Your task to perform on an android device: Add "asus zenbook" to the cart on walmart Image 0: 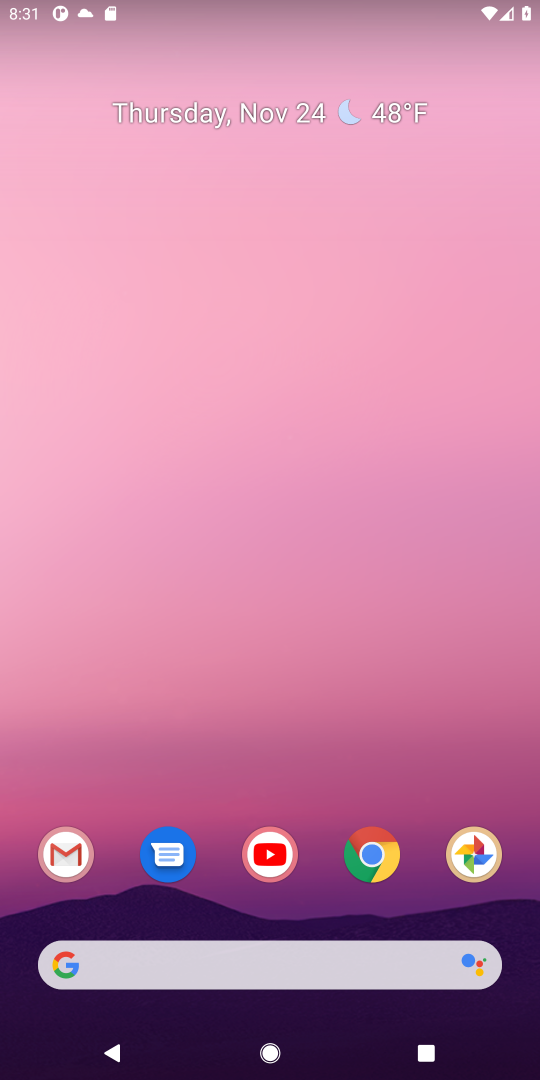
Step 0: click (369, 853)
Your task to perform on an android device: Add "asus zenbook" to the cart on walmart Image 1: 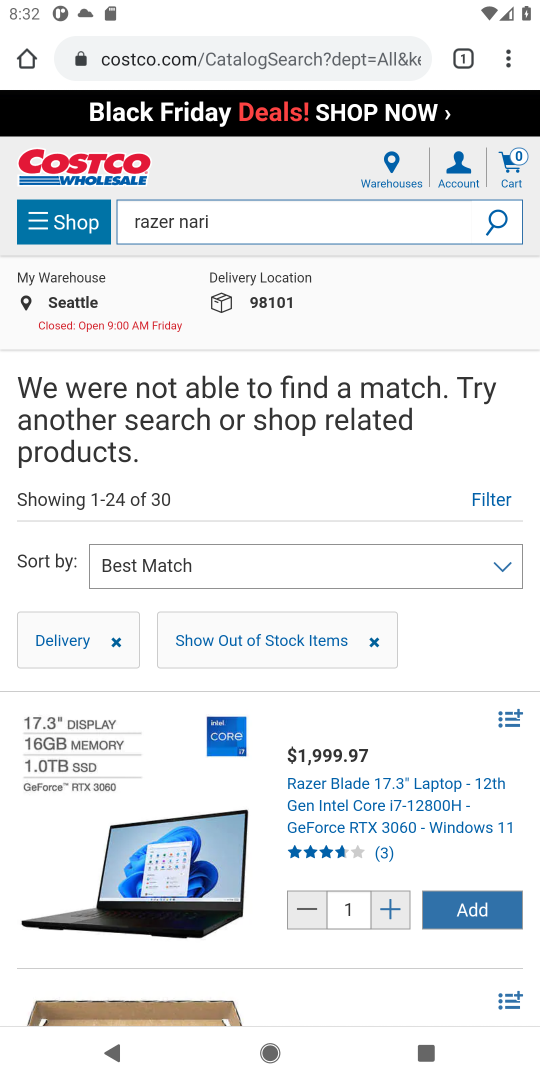
Step 1: click (254, 58)
Your task to perform on an android device: Add "asus zenbook" to the cart on walmart Image 2: 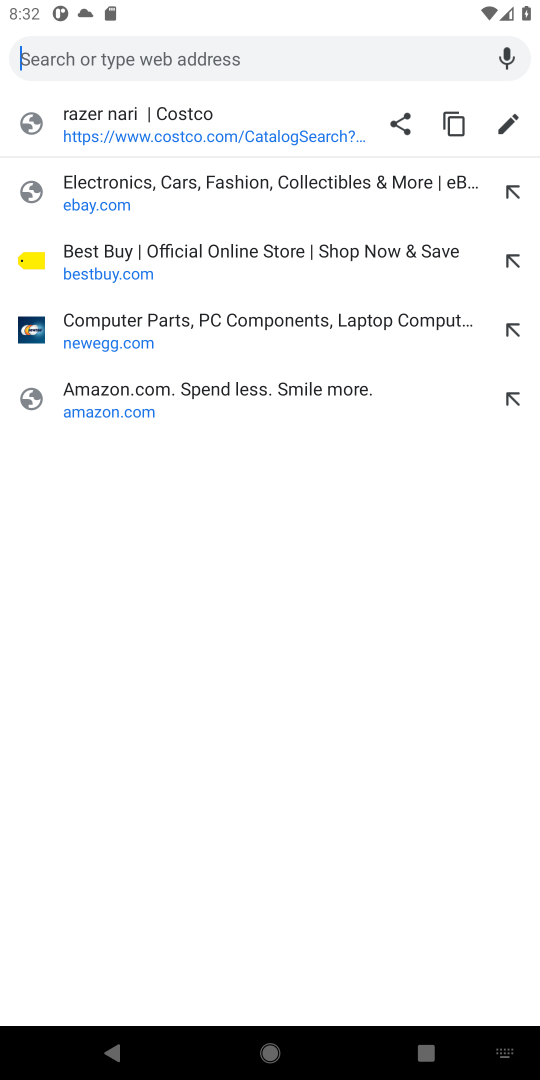
Step 2: type "walmart.com"
Your task to perform on an android device: Add "asus zenbook" to the cart on walmart Image 3: 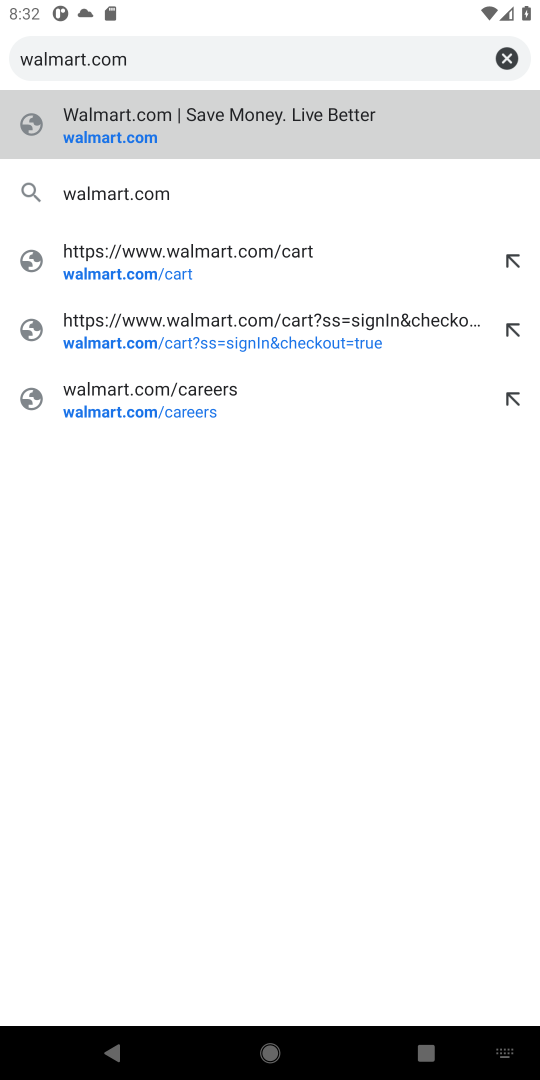
Step 3: click (93, 139)
Your task to perform on an android device: Add "asus zenbook" to the cart on walmart Image 4: 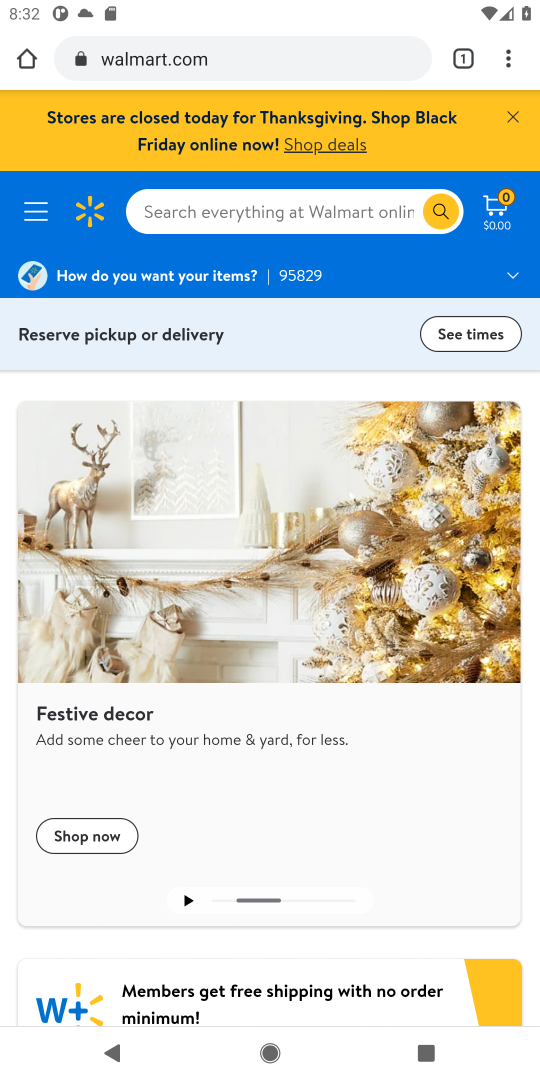
Step 4: click (205, 216)
Your task to perform on an android device: Add "asus zenbook" to the cart on walmart Image 5: 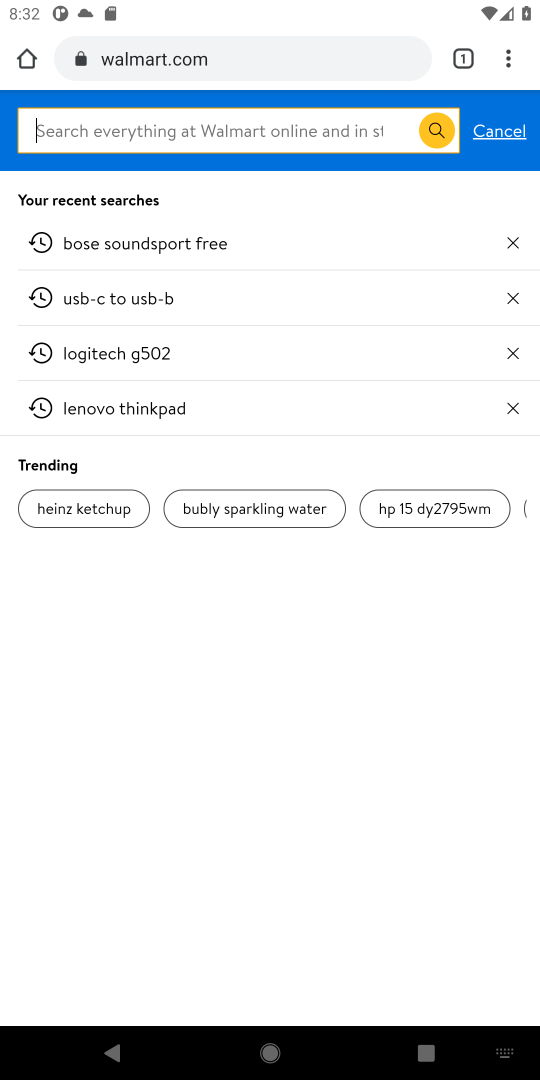
Step 5: type "asus zenbook"
Your task to perform on an android device: Add "asus zenbook" to the cart on walmart Image 6: 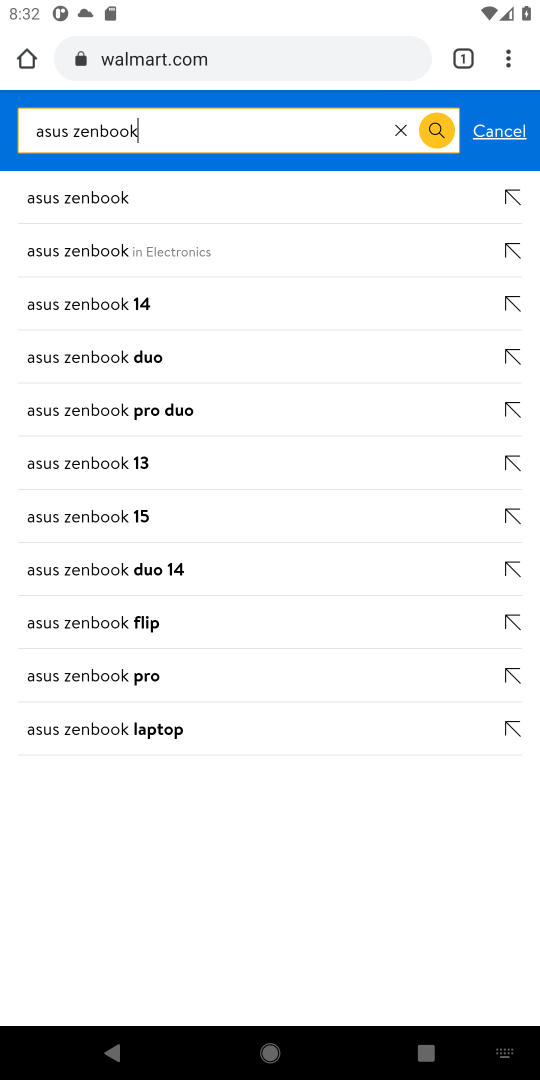
Step 6: click (82, 200)
Your task to perform on an android device: Add "asus zenbook" to the cart on walmart Image 7: 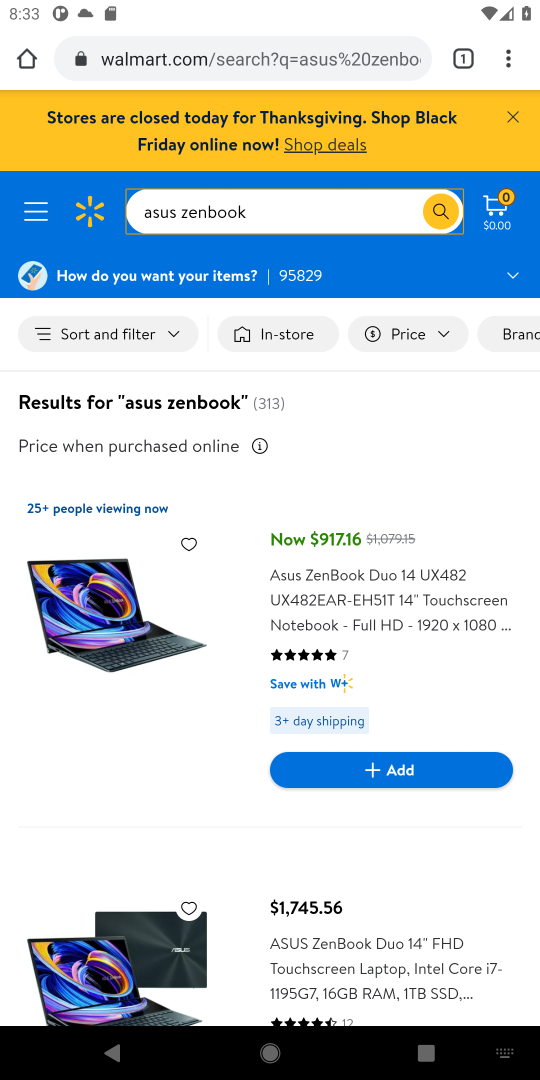
Step 7: click (363, 781)
Your task to perform on an android device: Add "asus zenbook" to the cart on walmart Image 8: 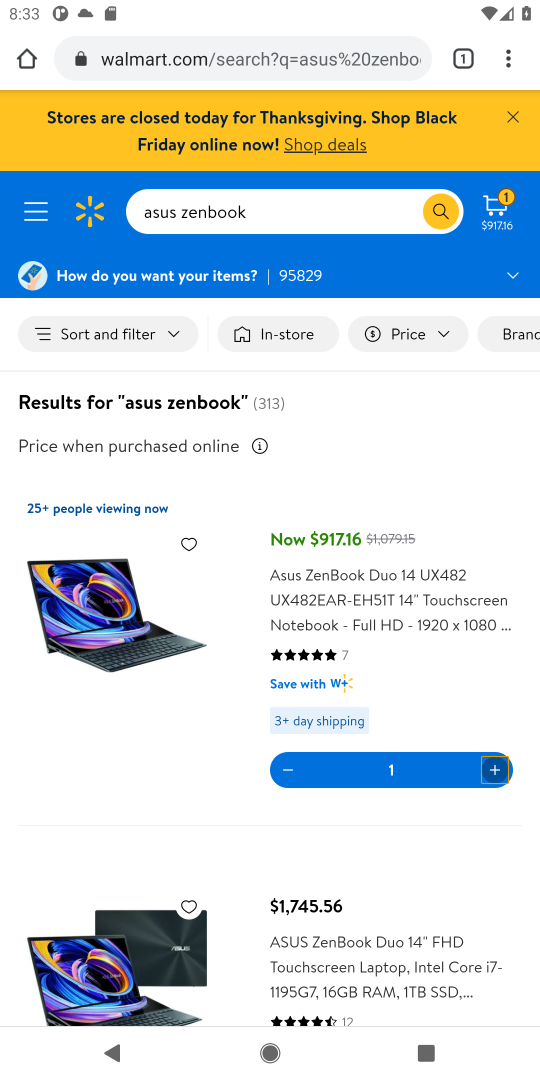
Step 8: task complete